Your task to perform on an android device: Go to Yahoo.com Image 0: 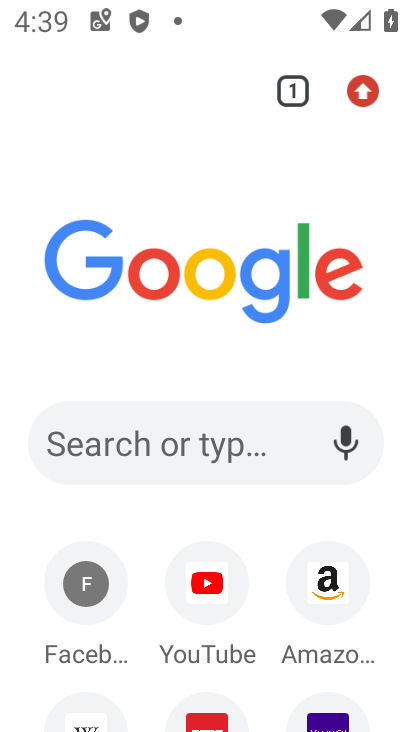
Step 0: drag from (261, 530) to (253, 240)
Your task to perform on an android device: Go to Yahoo.com Image 1: 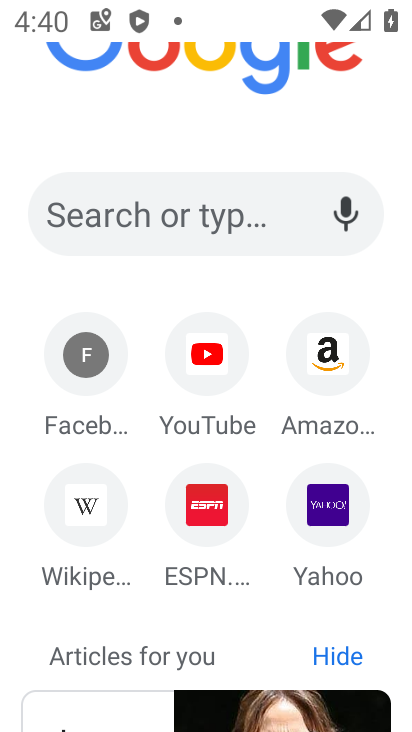
Step 1: click (331, 503)
Your task to perform on an android device: Go to Yahoo.com Image 2: 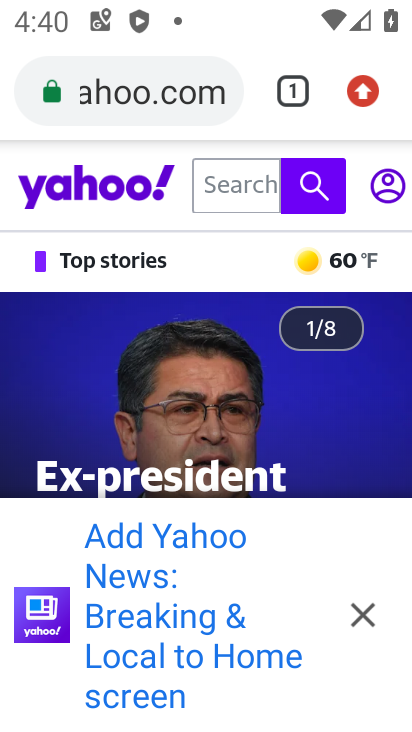
Step 2: click (354, 614)
Your task to perform on an android device: Go to Yahoo.com Image 3: 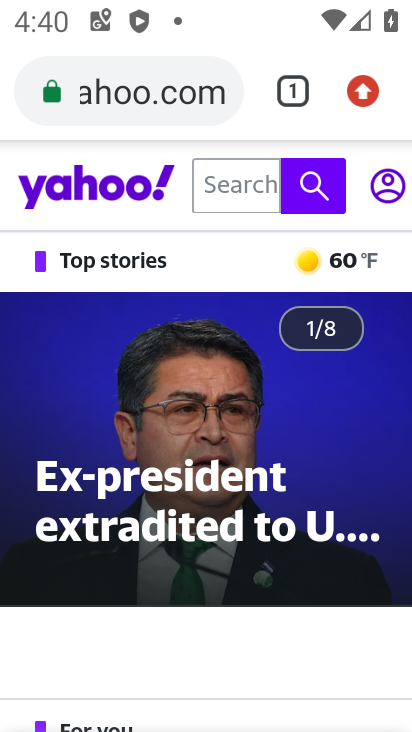
Step 3: task complete